Your task to perform on an android device: Add usb-c to usb-a to the cart on amazon.com, then select checkout. Image 0: 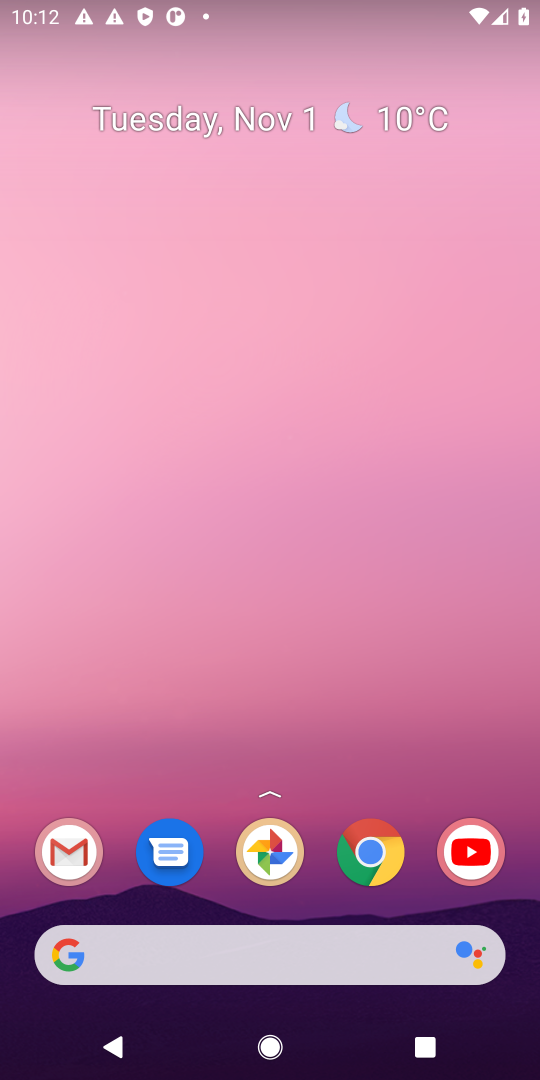
Step 0: press home button
Your task to perform on an android device: Add usb-c to usb-a to the cart on amazon.com, then select checkout. Image 1: 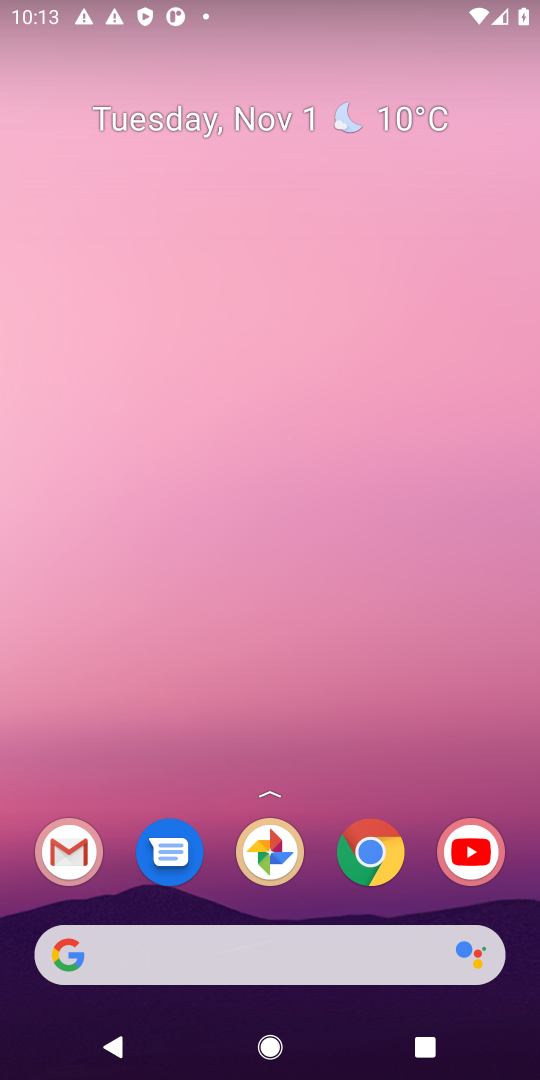
Step 1: click (74, 964)
Your task to perform on an android device: Add usb-c to usb-a to the cart on amazon.com, then select checkout. Image 2: 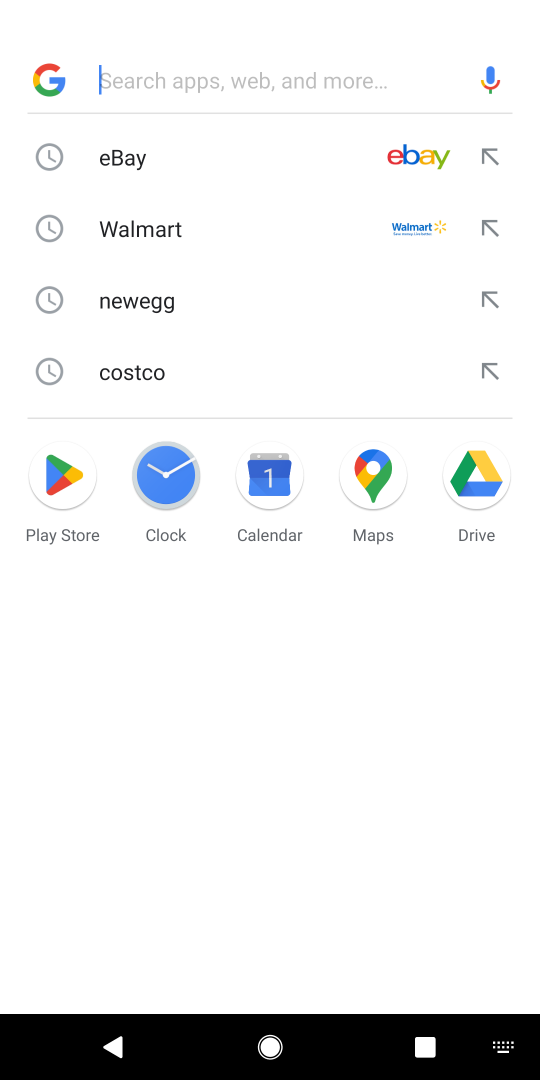
Step 2: type "amazon.com"
Your task to perform on an android device: Add usb-c to usb-a to the cart on amazon.com, then select checkout. Image 3: 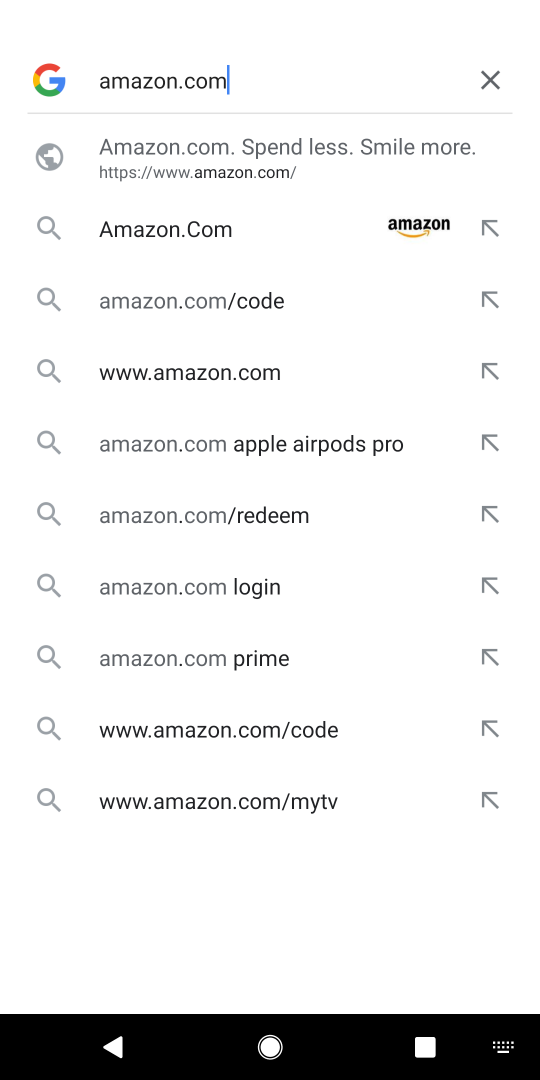
Step 3: press enter
Your task to perform on an android device: Add usb-c to usb-a to the cart on amazon.com, then select checkout. Image 4: 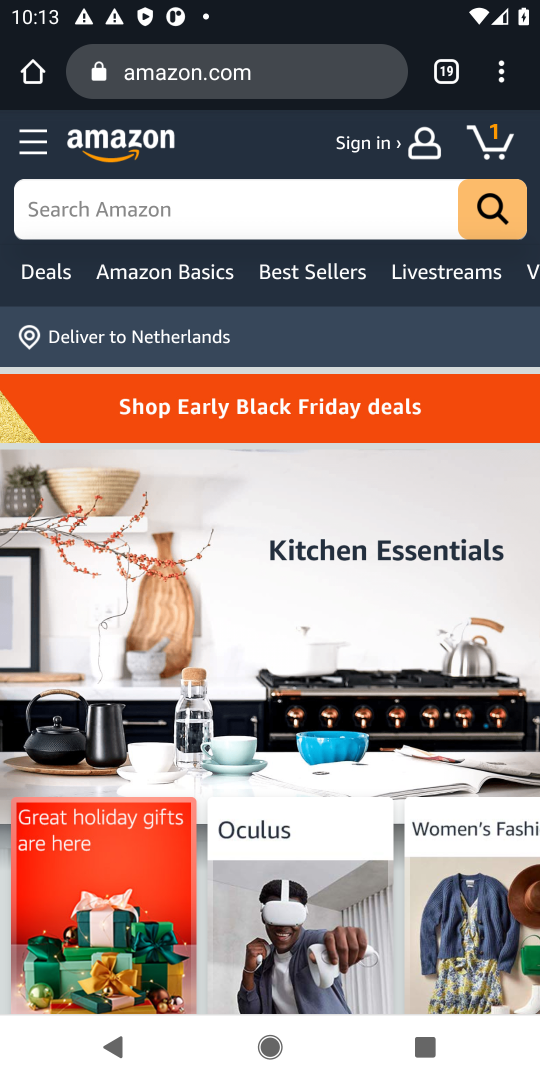
Step 4: click (206, 207)
Your task to perform on an android device: Add usb-c to usb-a to the cart on amazon.com, then select checkout. Image 5: 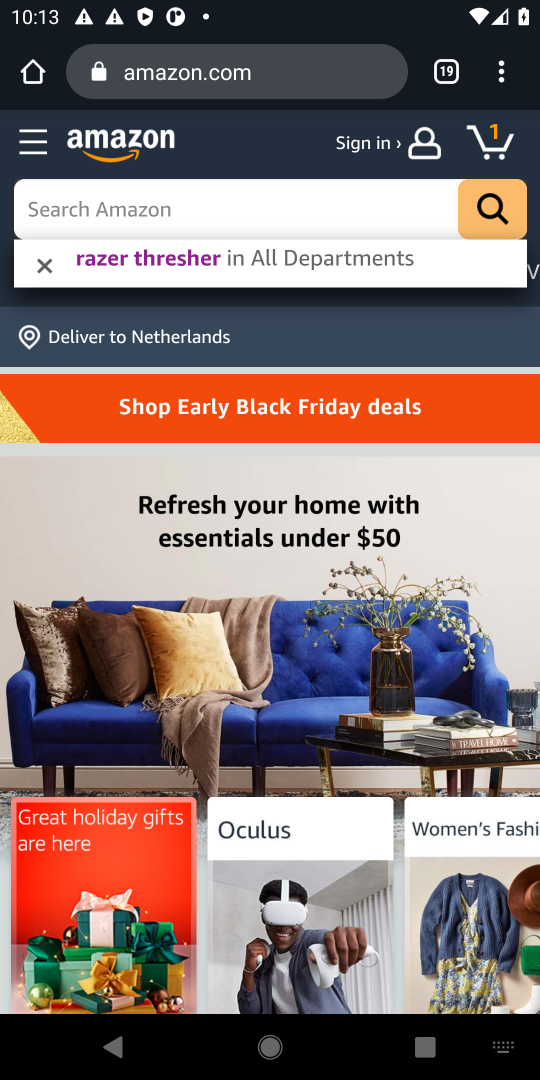
Step 5: press enter
Your task to perform on an android device: Add usb-c to usb-a to the cart on amazon.com, then select checkout. Image 6: 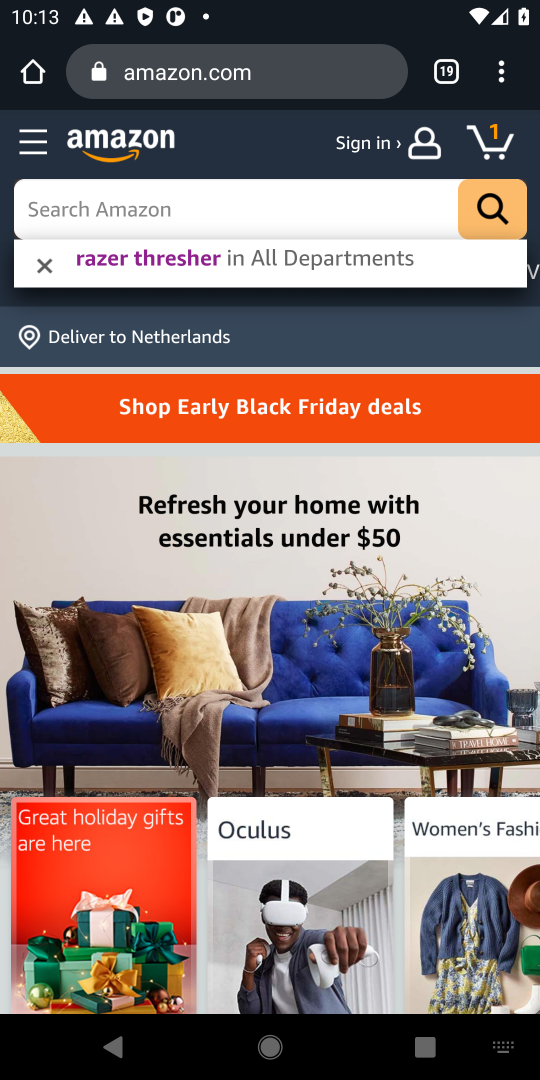
Step 6: type "usb-c to usb-a"
Your task to perform on an android device: Add usb-c to usb-a to the cart on amazon.com, then select checkout. Image 7: 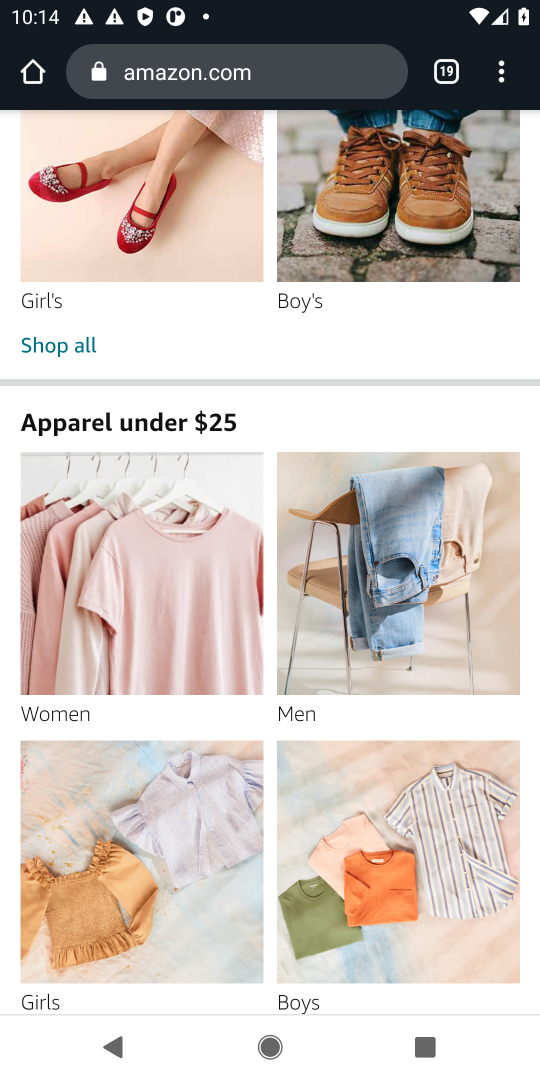
Step 7: task complete